Your task to perform on an android device: Do I have any events tomorrow? Image 0: 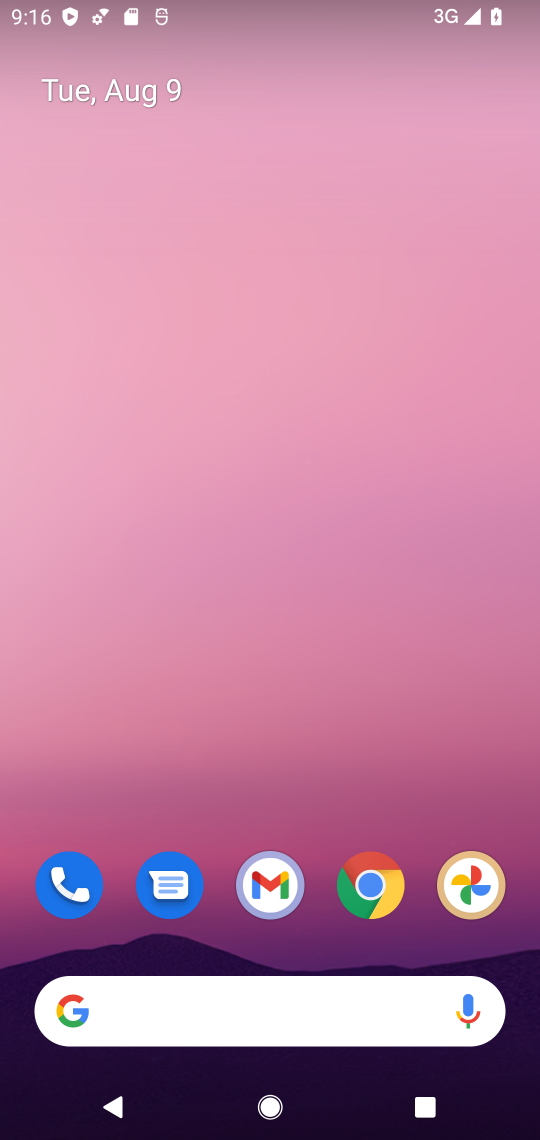
Step 0: press home button
Your task to perform on an android device: Do I have any events tomorrow? Image 1: 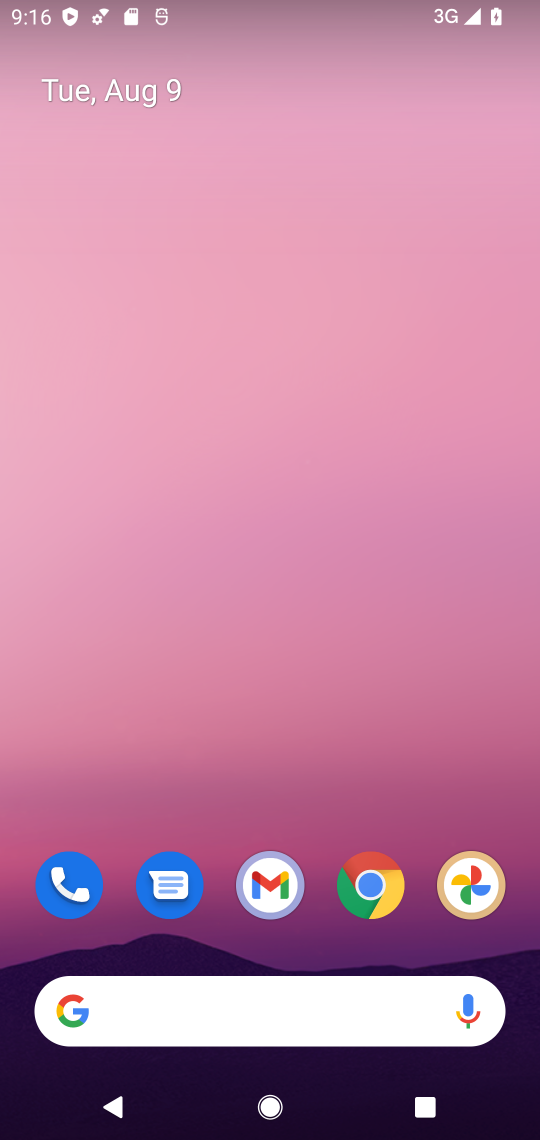
Step 1: drag from (316, 825) to (392, 124)
Your task to perform on an android device: Do I have any events tomorrow? Image 2: 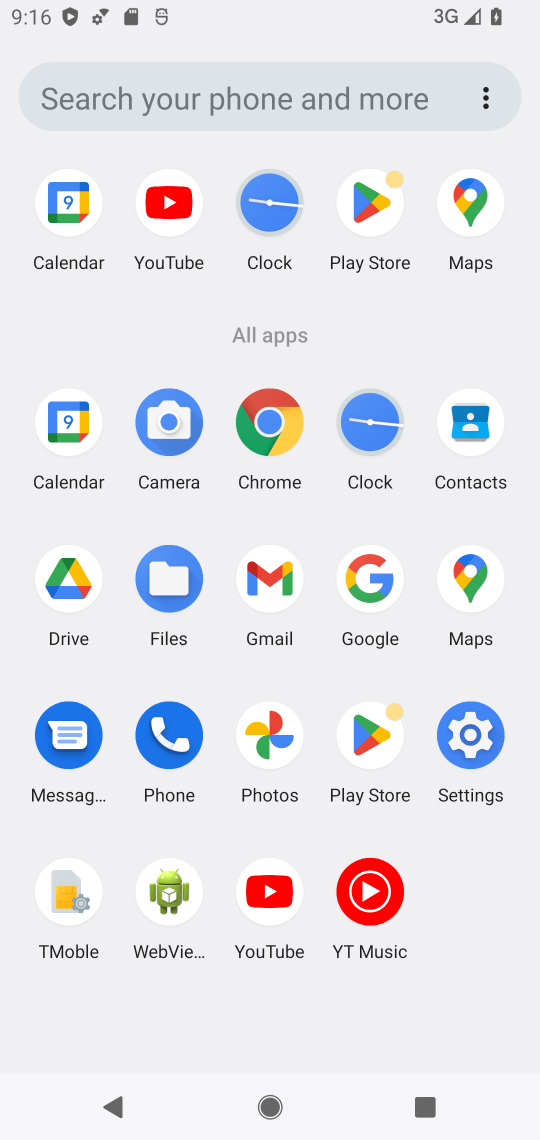
Step 2: click (71, 417)
Your task to perform on an android device: Do I have any events tomorrow? Image 3: 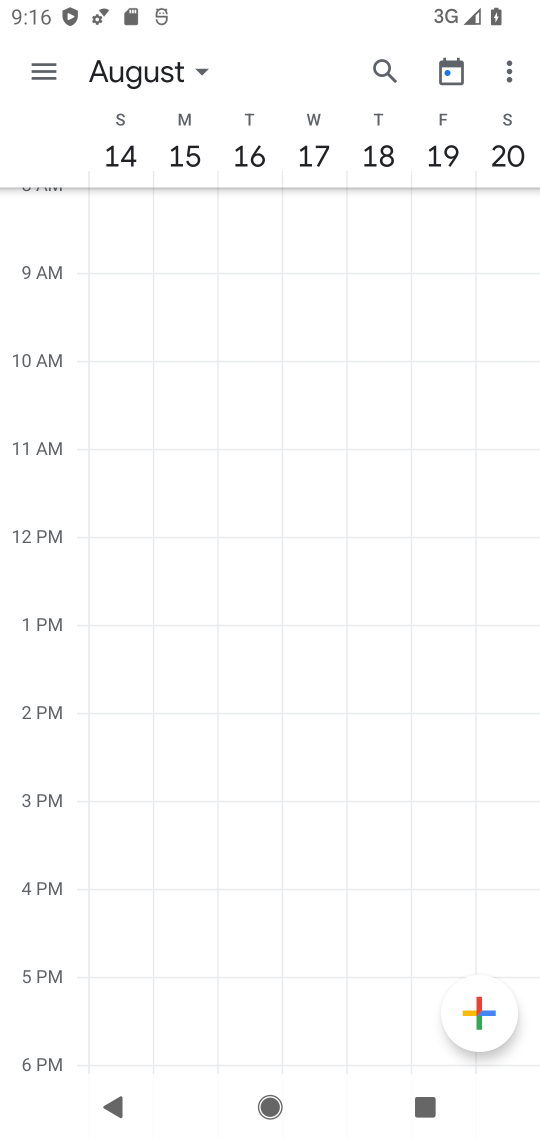
Step 3: drag from (131, 149) to (535, 186)
Your task to perform on an android device: Do I have any events tomorrow? Image 4: 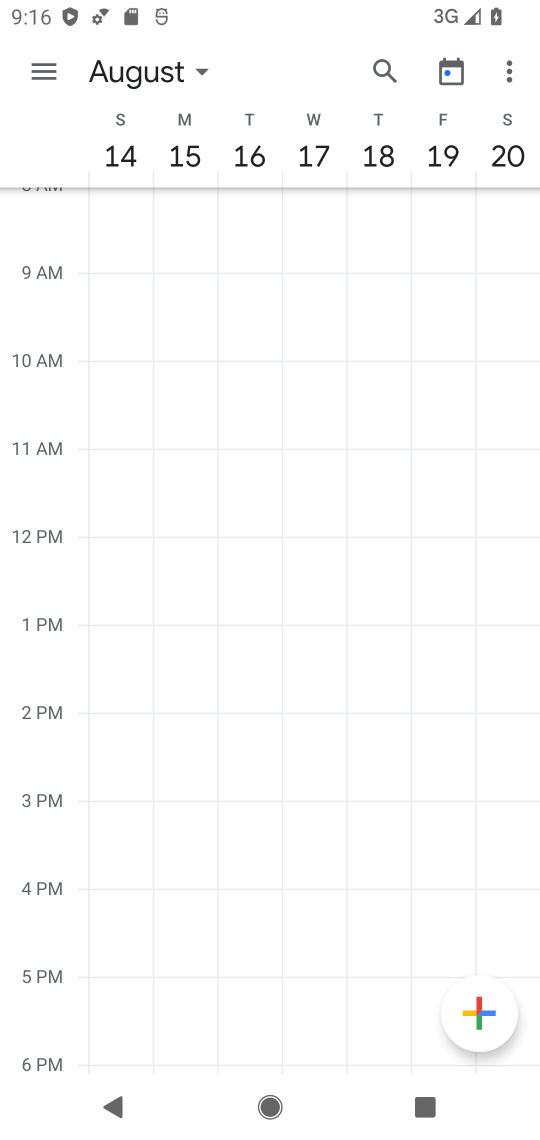
Step 4: drag from (120, 149) to (537, 194)
Your task to perform on an android device: Do I have any events tomorrow? Image 5: 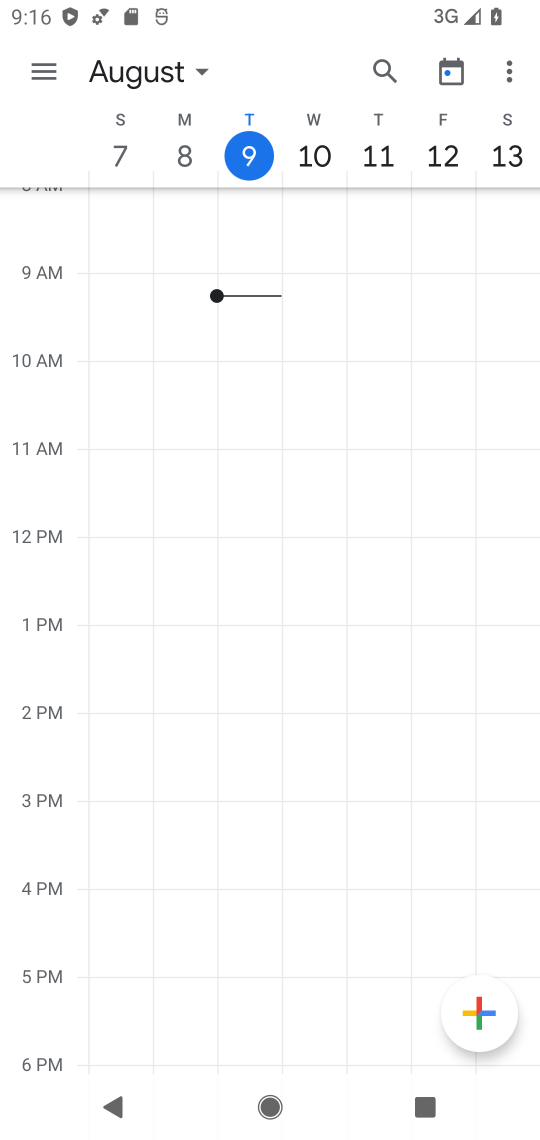
Step 5: click (312, 151)
Your task to perform on an android device: Do I have any events tomorrow? Image 6: 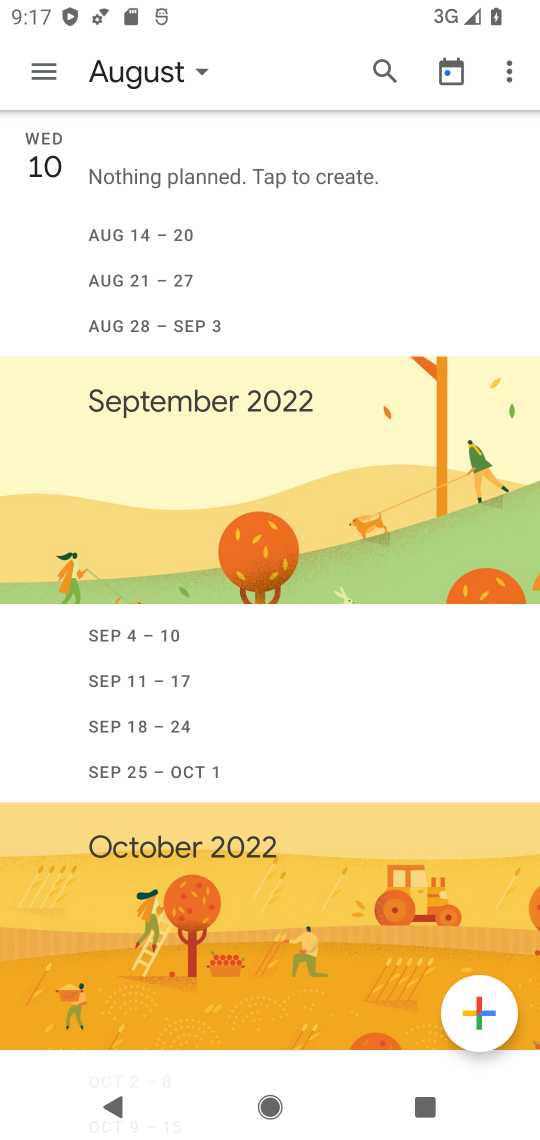
Step 6: click (52, 159)
Your task to perform on an android device: Do I have any events tomorrow? Image 7: 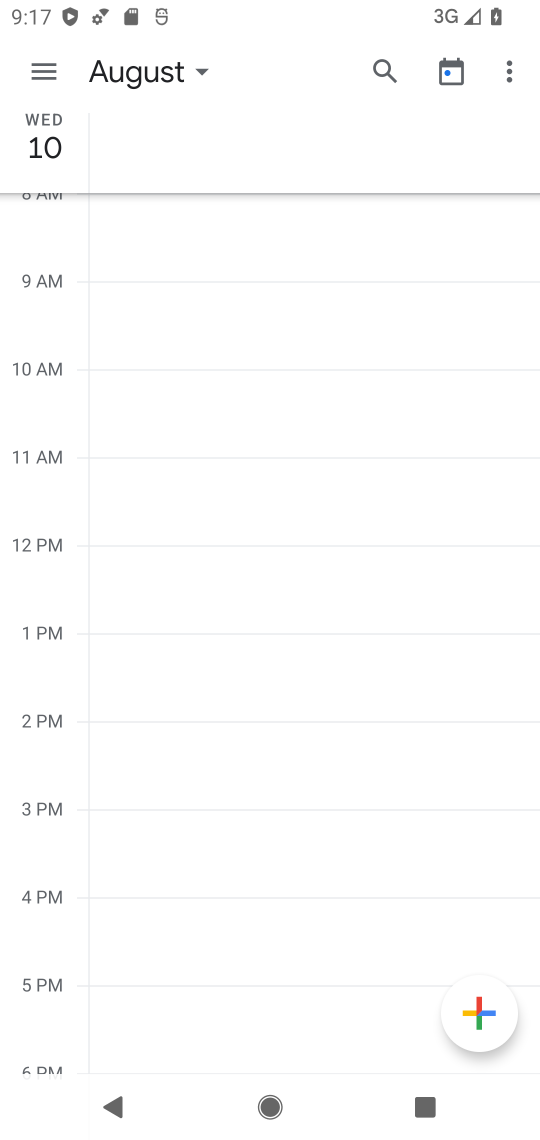
Step 7: task complete